Your task to perform on an android device: Open eBay Image 0: 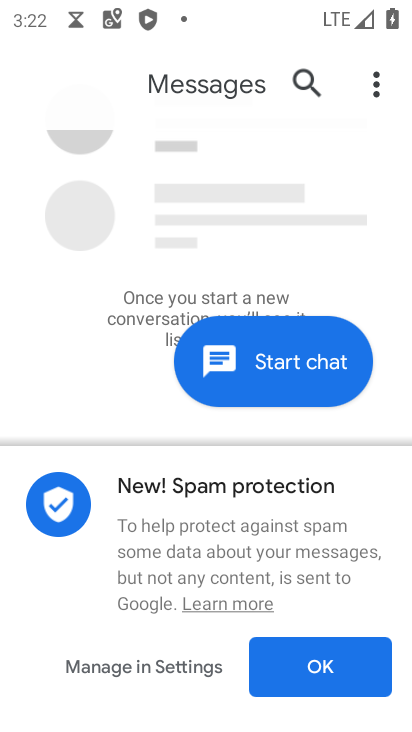
Step 0: press home button
Your task to perform on an android device: Open eBay Image 1: 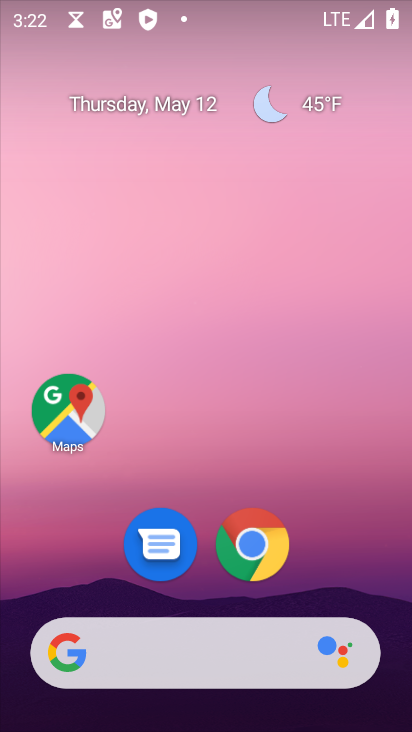
Step 1: click (254, 546)
Your task to perform on an android device: Open eBay Image 2: 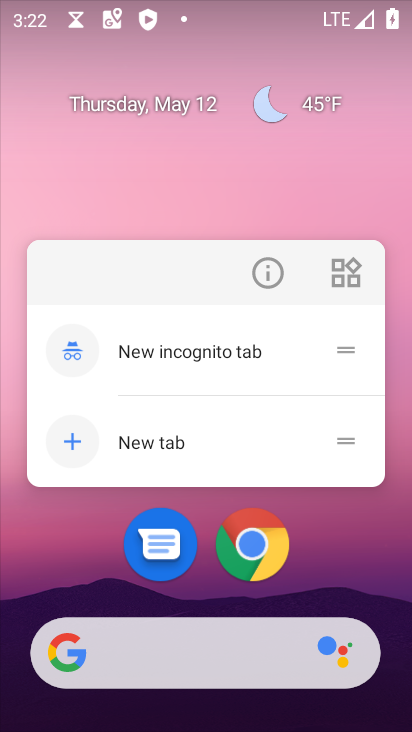
Step 2: click (249, 549)
Your task to perform on an android device: Open eBay Image 3: 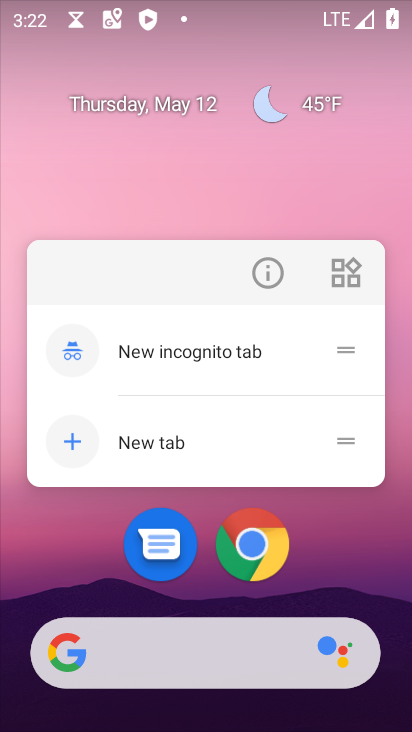
Step 3: click (250, 546)
Your task to perform on an android device: Open eBay Image 4: 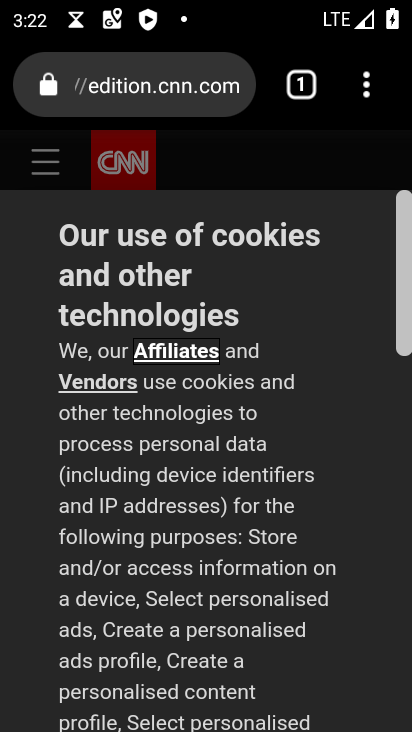
Step 4: click (153, 94)
Your task to perform on an android device: Open eBay Image 5: 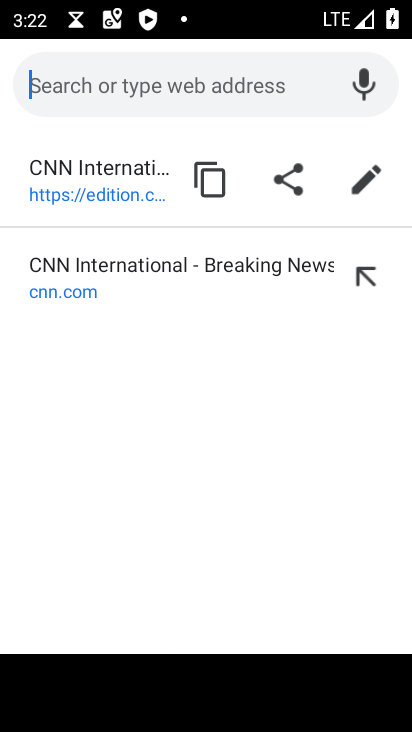
Step 5: type "ebay.com"
Your task to perform on an android device: Open eBay Image 6: 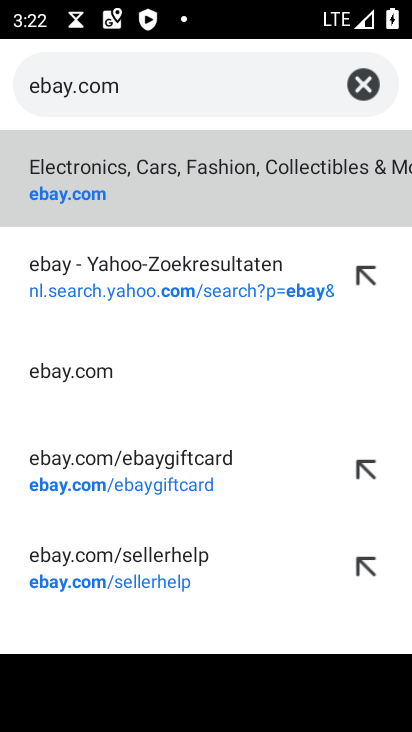
Step 6: click (99, 169)
Your task to perform on an android device: Open eBay Image 7: 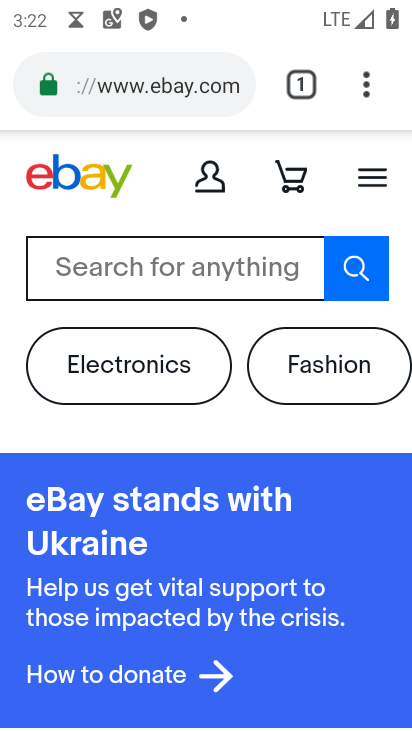
Step 7: task complete